Your task to perform on an android device: install app "Google Home" Image 0: 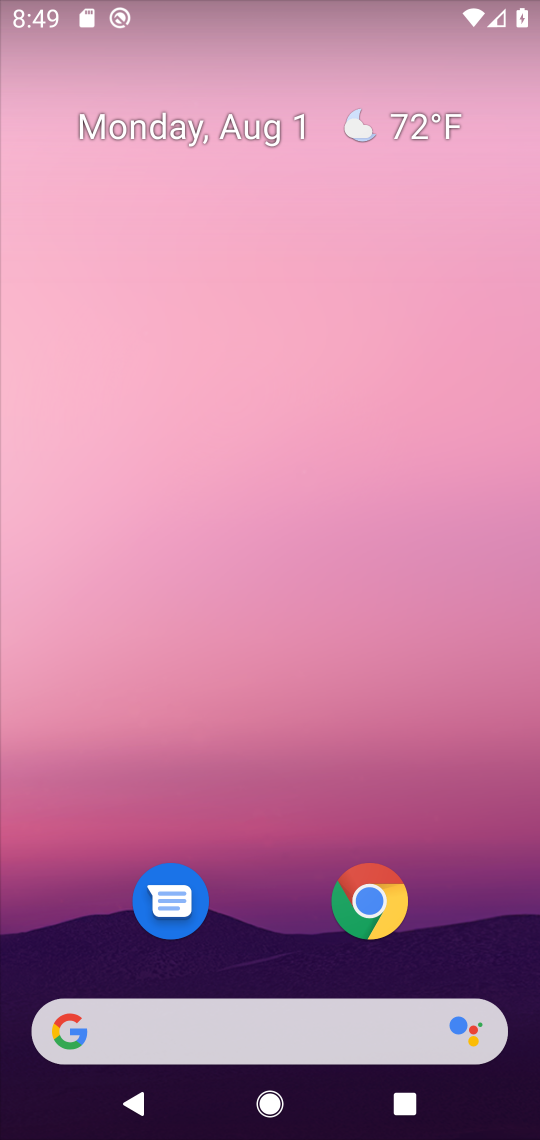
Step 0: press home button
Your task to perform on an android device: install app "Google Home" Image 1: 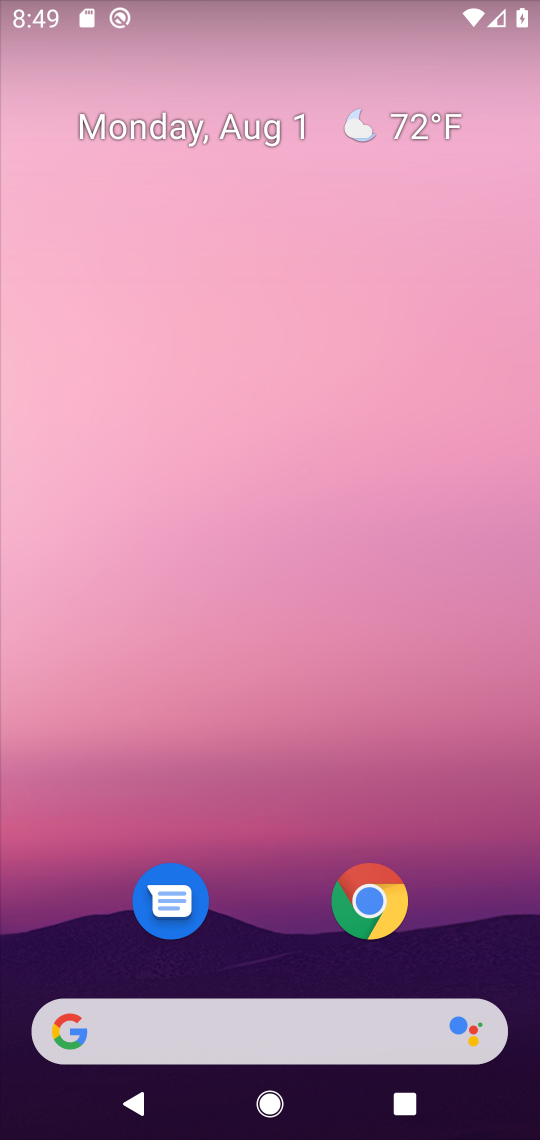
Step 1: drag from (259, 934) to (259, 289)
Your task to perform on an android device: install app "Google Home" Image 2: 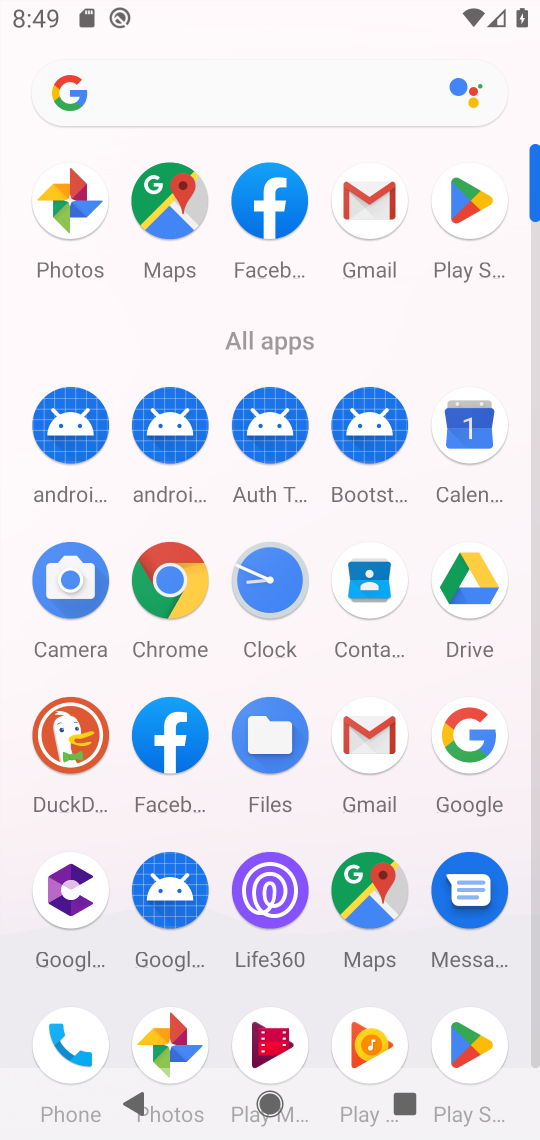
Step 2: click (471, 203)
Your task to perform on an android device: install app "Google Home" Image 3: 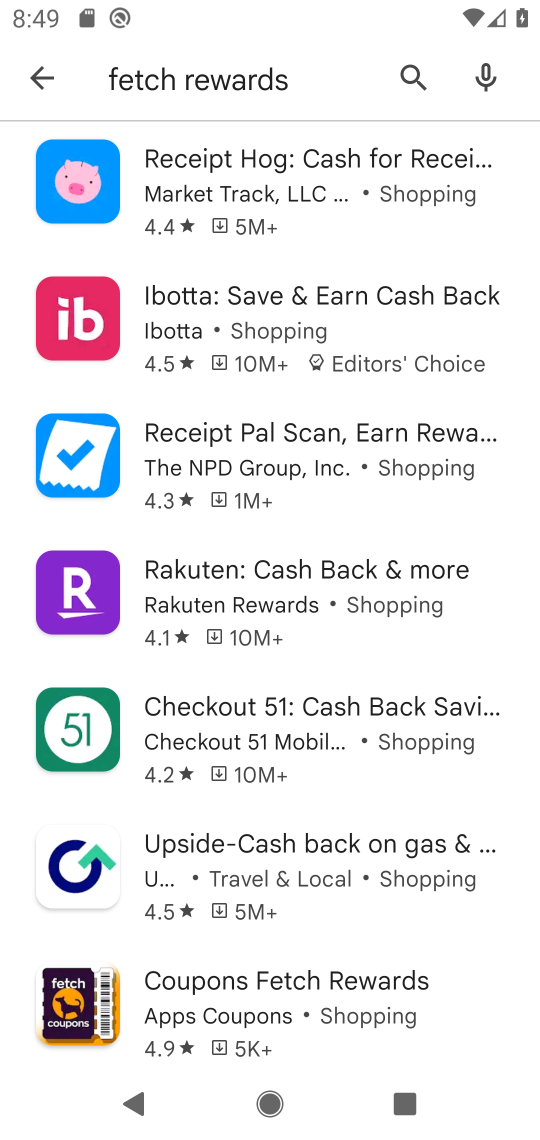
Step 3: click (396, 68)
Your task to perform on an android device: install app "Google Home" Image 4: 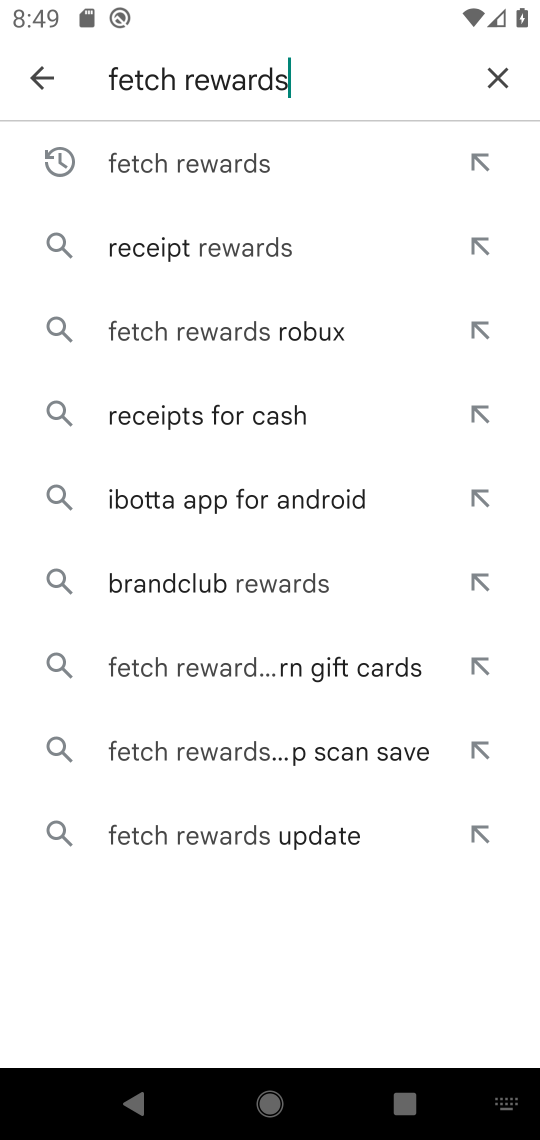
Step 4: click (509, 82)
Your task to perform on an android device: install app "Google Home" Image 5: 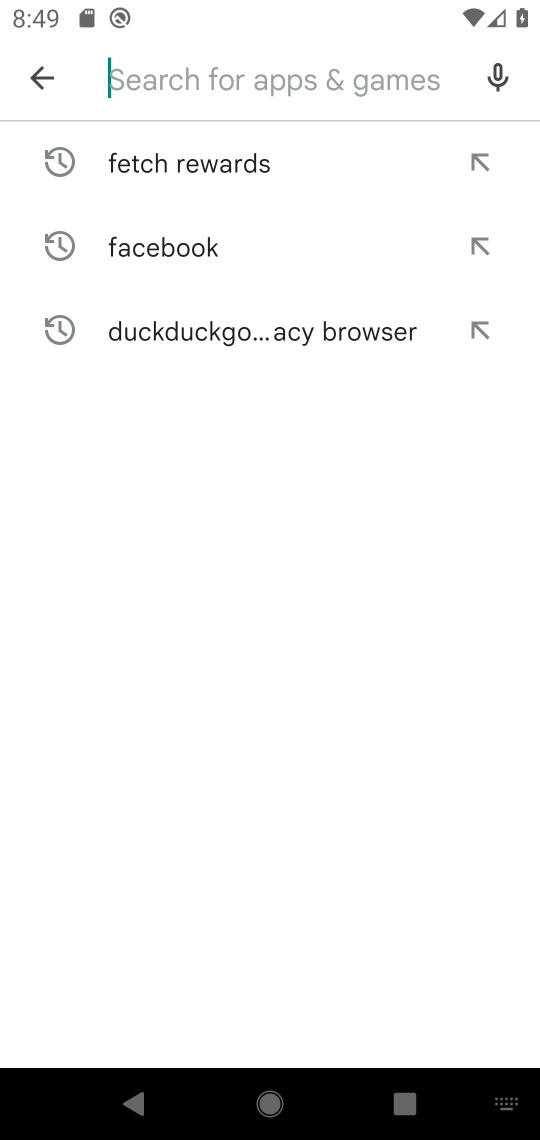
Step 5: type "google home"
Your task to perform on an android device: install app "Google Home" Image 6: 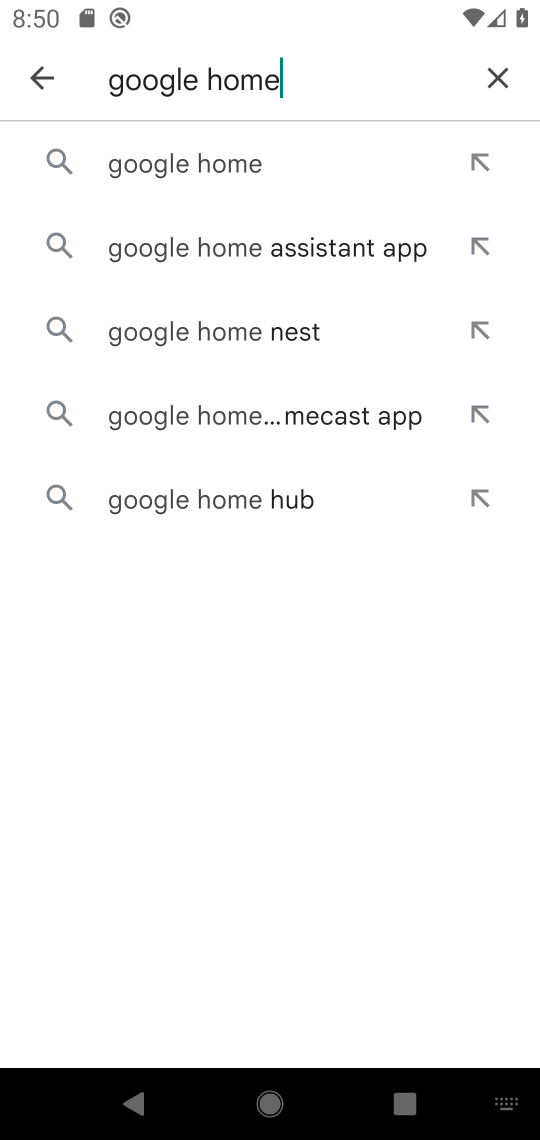
Step 6: click (158, 145)
Your task to perform on an android device: install app "Google Home" Image 7: 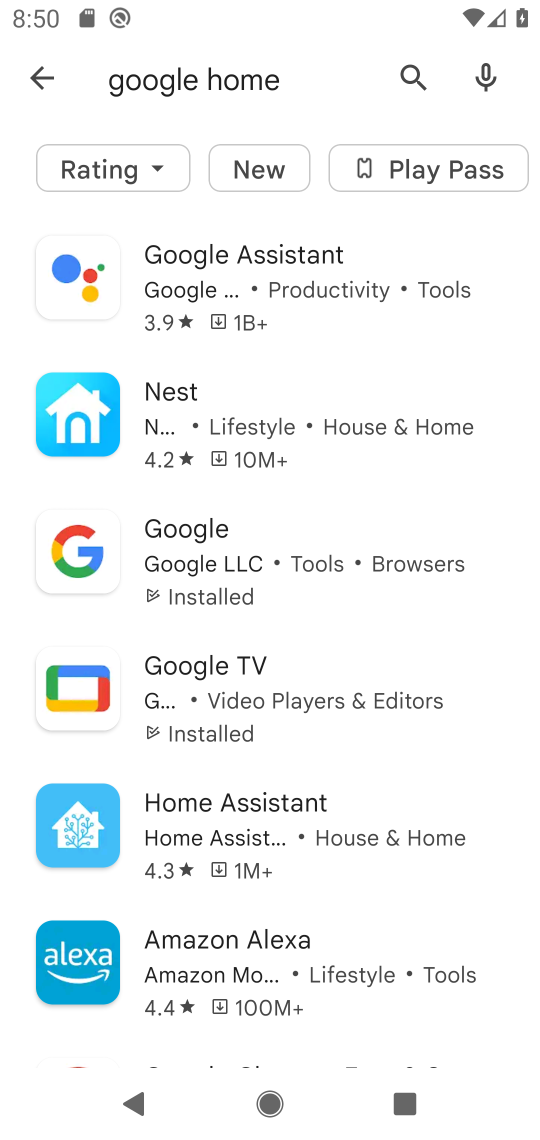
Step 7: task complete